Your task to perform on an android device: allow notifications from all sites in the chrome app Image 0: 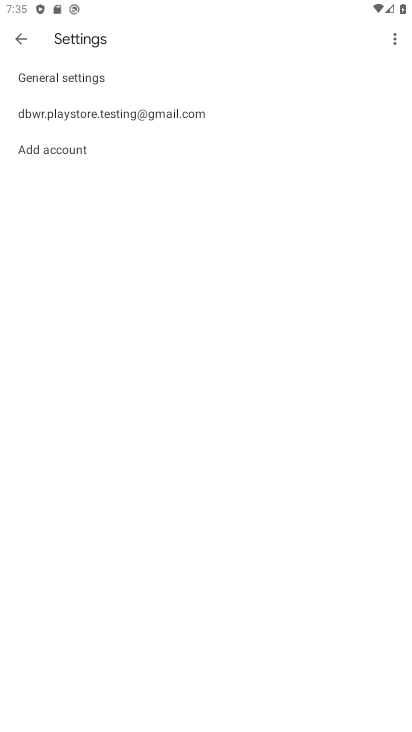
Step 0: press home button
Your task to perform on an android device: allow notifications from all sites in the chrome app Image 1: 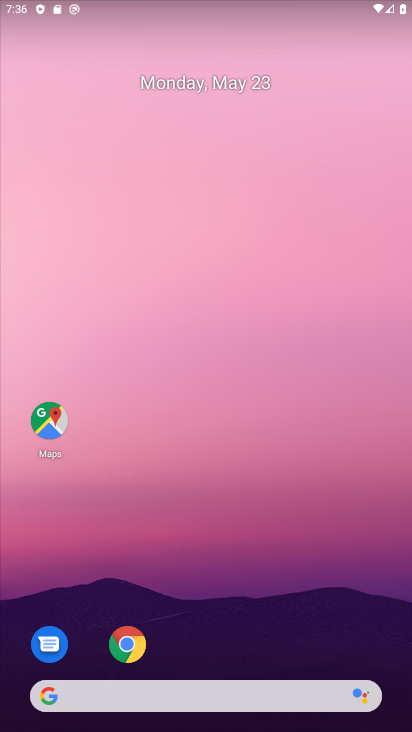
Step 1: click (129, 640)
Your task to perform on an android device: allow notifications from all sites in the chrome app Image 2: 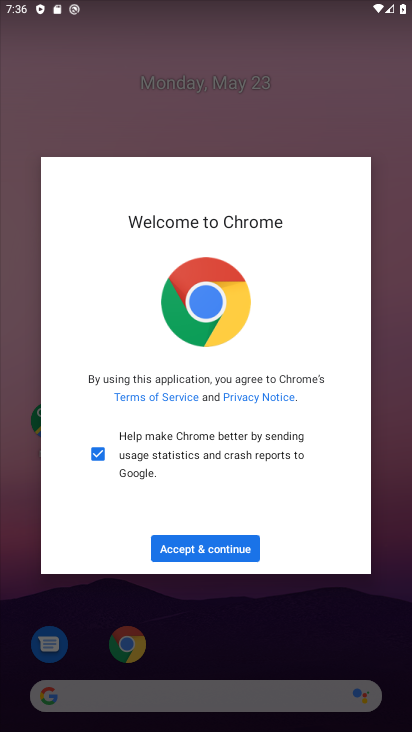
Step 2: click (166, 556)
Your task to perform on an android device: allow notifications from all sites in the chrome app Image 3: 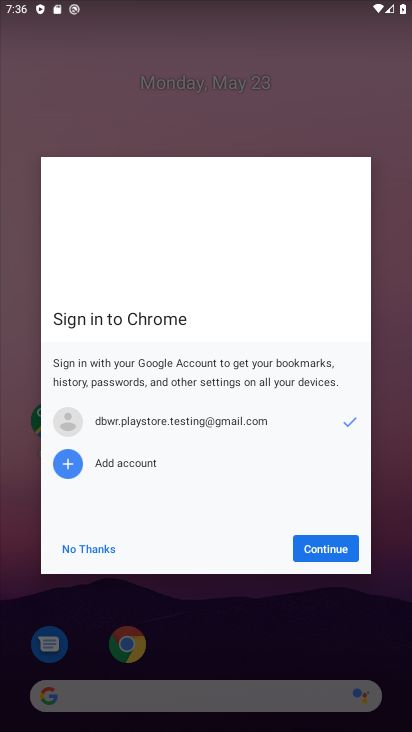
Step 3: click (67, 550)
Your task to perform on an android device: allow notifications from all sites in the chrome app Image 4: 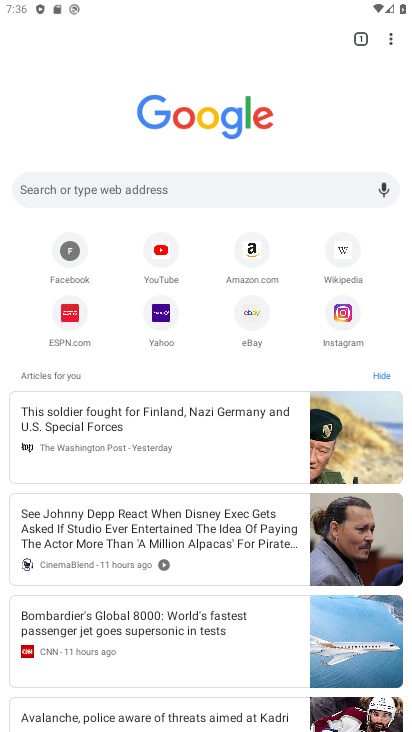
Step 4: click (388, 36)
Your task to perform on an android device: allow notifications from all sites in the chrome app Image 5: 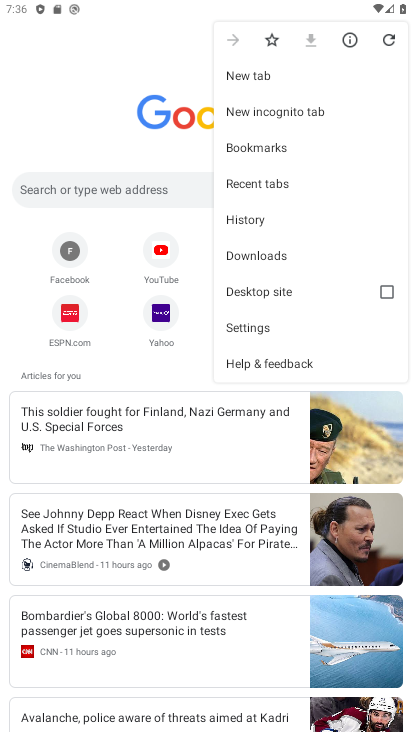
Step 5: click (240, 327)
Your task to perform on an android device: allow notifications from all sites in the chrome app Image 6: 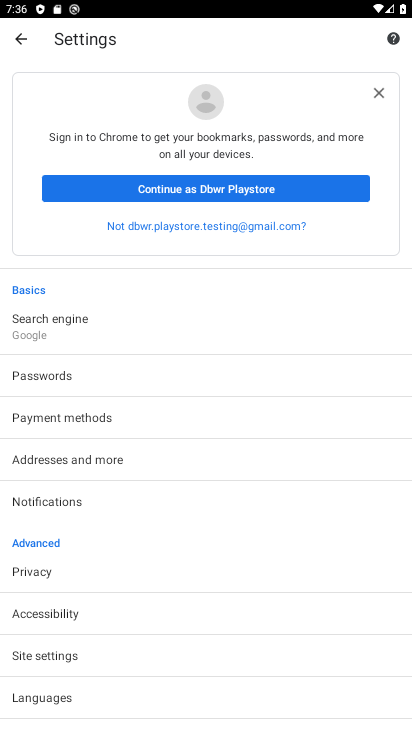
Step 6: click (89, 659)
Your task to perform on an android device: allow notifications from all sites in the chrome app Image 7: 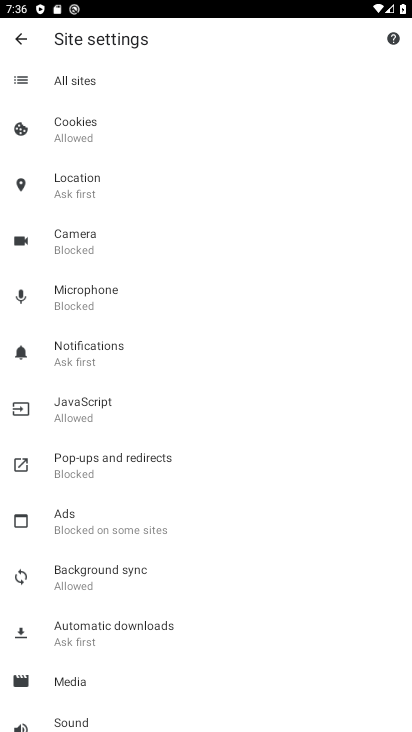
Step 7: click (125, 351)
Your task to perform on an android device: allow notifications from all sites in the chrome app Image 8: 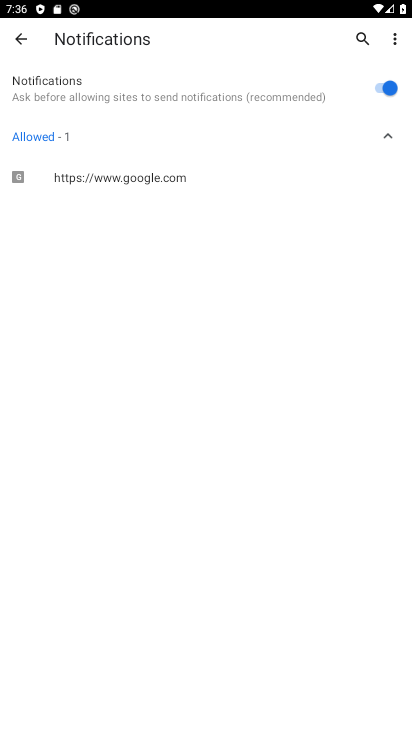
Step 8: task complete